Your task to perform on an android device: toggle improve location accuracy Image 0: 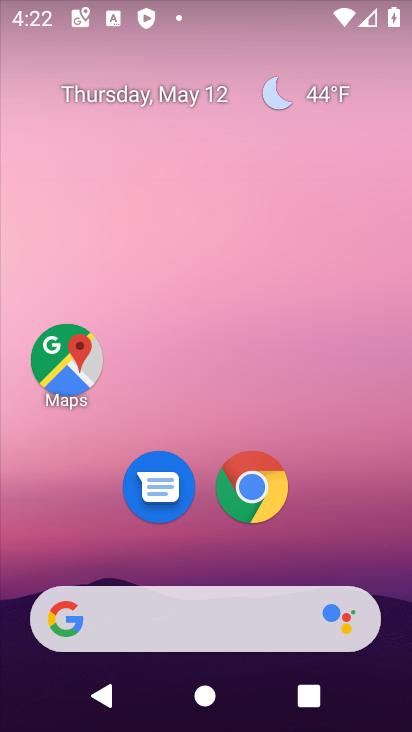
Step 0: drag from (335, 534) to (307, 41)
Your task to perform on an android device: toggle improve location accuracy Image 1: 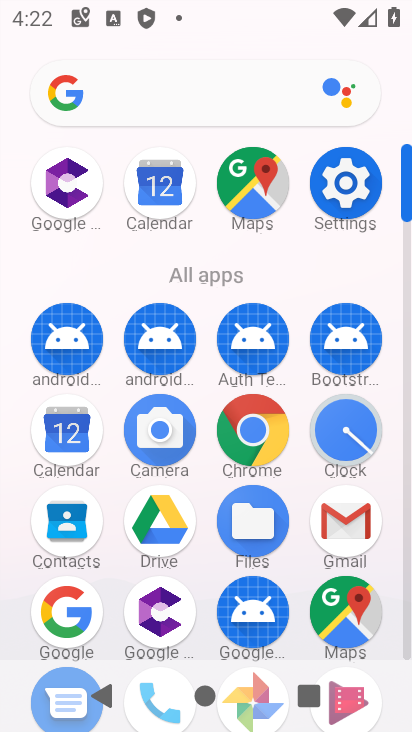
Step 1: click (343, 195)
Your task to perform on an android device: toggle improve location accuracy Image 2: 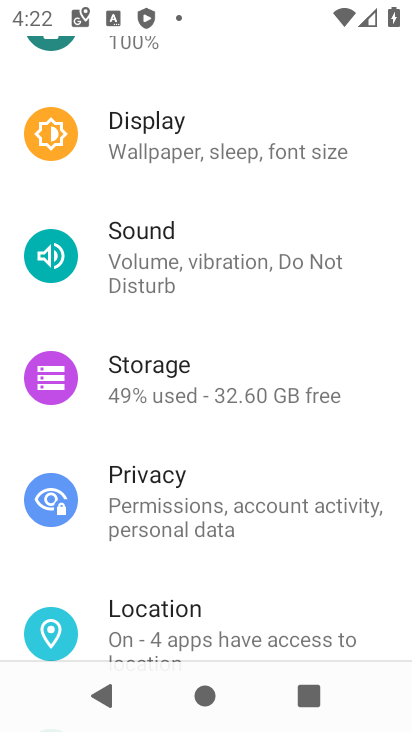
Step 2: click (268, 609)
Your task to perform on an android device: toggle improve location accuracy Image 3: 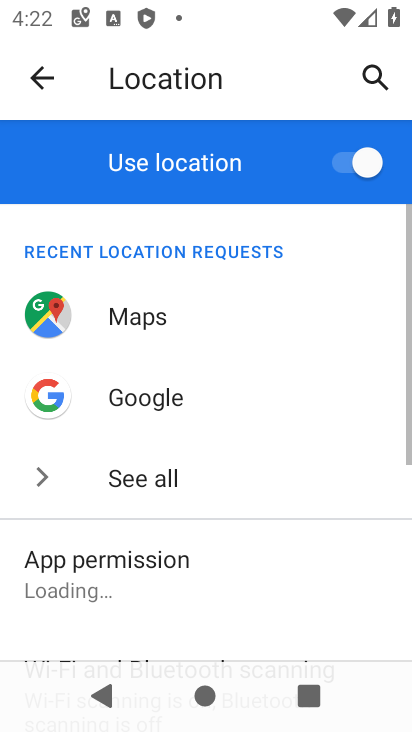
Step 3: drag from (268, 609) to (229, 140)
Your task to perform on an android device: toggle improve location accuracy Image 4: 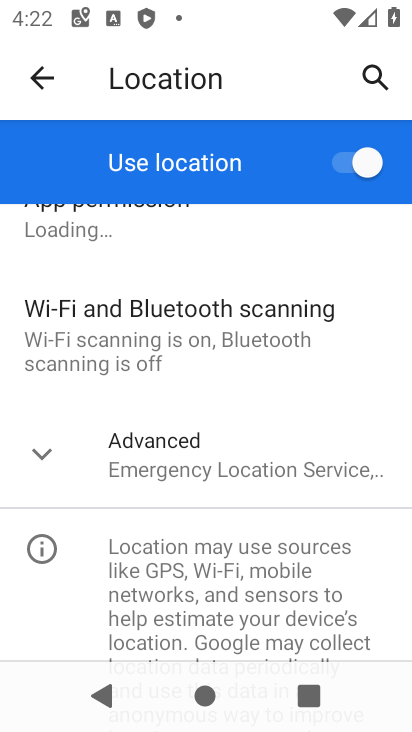
Step 4: click (215, 412)
Your task to perform on an android device: toggle improve location accuracy Image 5: 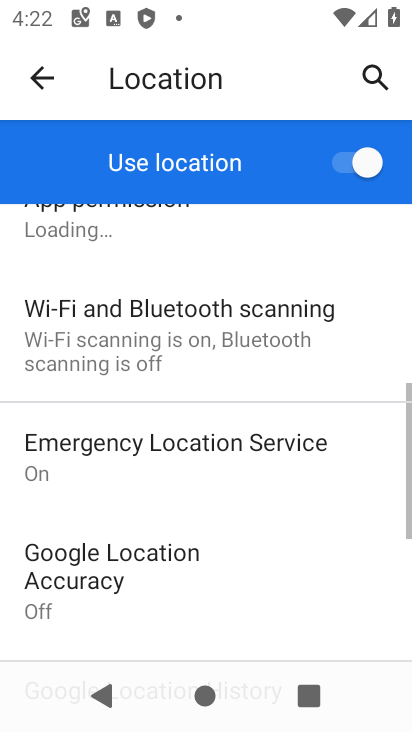
Step 5: drag from (224, 554) to (241, 225)
Your task to perform on an android device: toggle improve location accuracy Image 6: 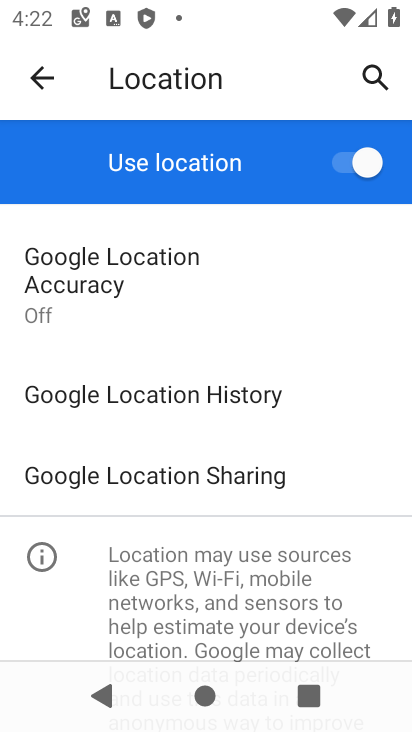
Step 6: click (153, 294)
Your task to perform on an android device: toggle improve location accuracy Image 7: 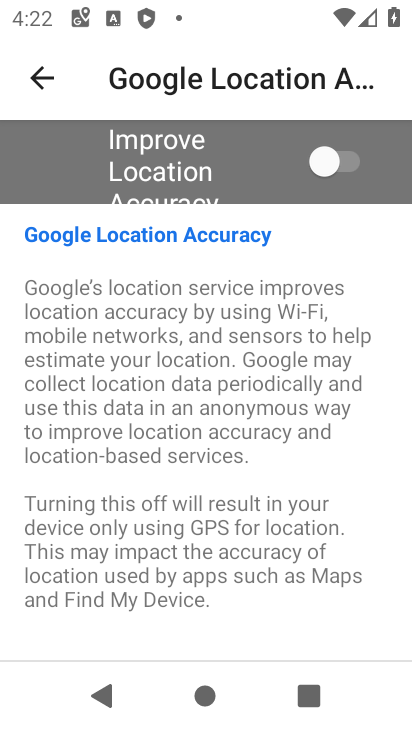
Step 7: click (343, 175)
Your task to perform on an android device: toggle improve location accuracy Image 8: 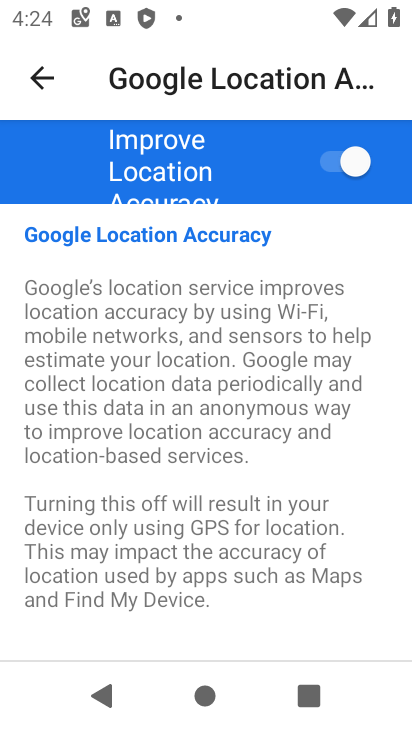
Step 8: task complete